Your task to perform on an android device: toggle show notifications on the lock screen Image 0: 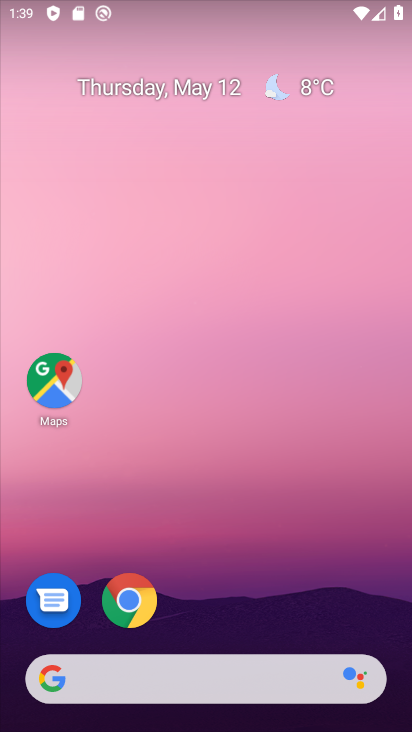
Step 0: drag from (209, 570) to (217, 179)
Your task to perform on an android device: toggle show notifications on the lock screen Image 1: 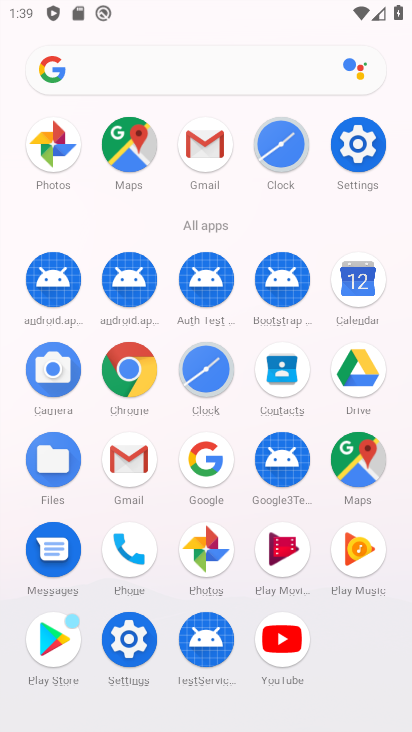
Step 1: click (361, 144)
Your task to perform on an android device: toggle show notifications on the lock screen Image 2: 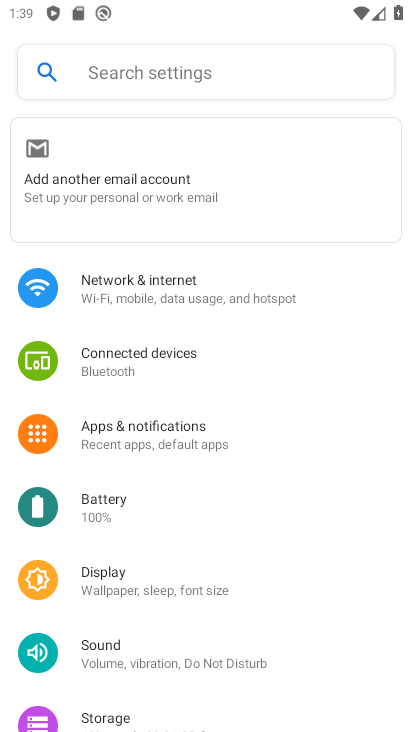
Step 2: click (205, 449)
Your task to perform on an android device: toggle show notifications on the lock screen Image 3: 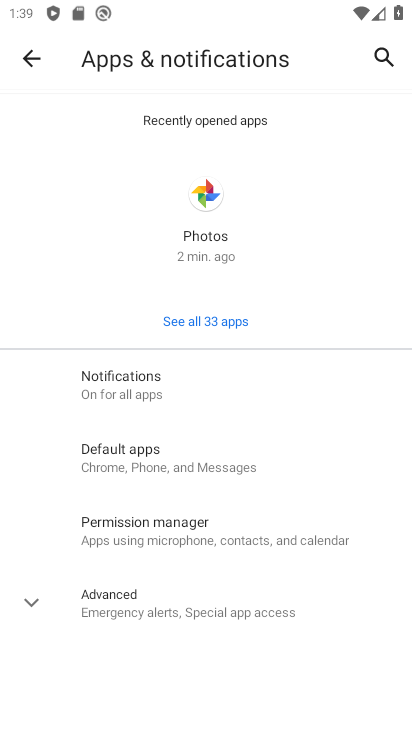
Step 3: click (168, 376)
Your task to perform on an android device: toggle show notifications on the lock screen Image 4: 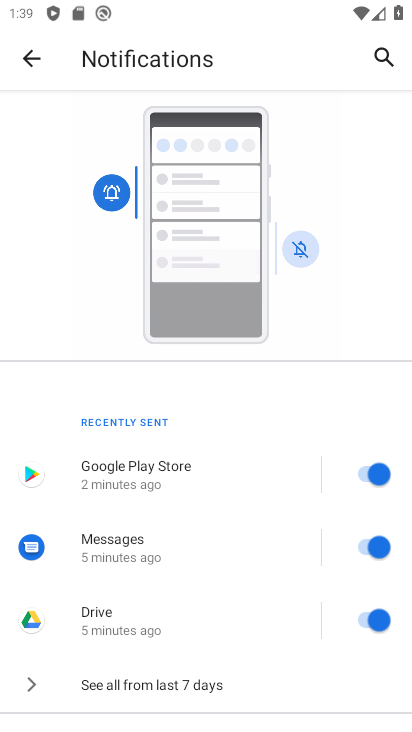
Step 4: drag from (176, 653) to (210, 303)
Your task to perform on an android device: toggle show notifications on the lock screen Image 5: 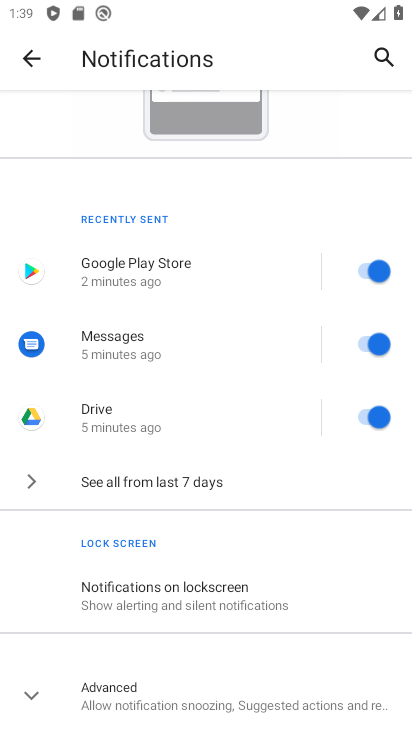
Step 5: click (177, 594)
Your task to perform on an android device: toggle show notifications on the lock screen Image 6: 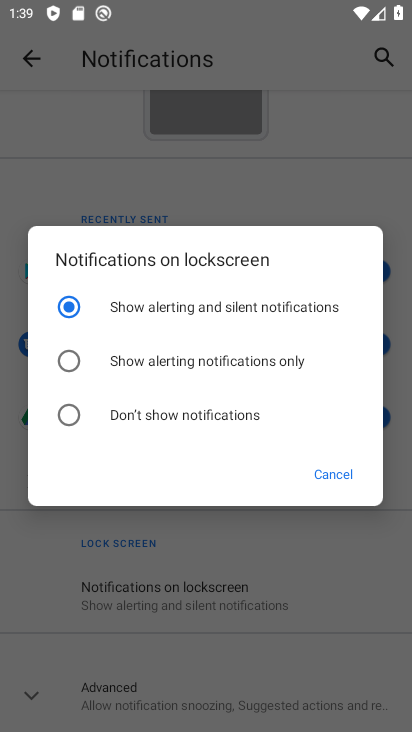
Step 6: click (62, 368)
Your task to perform on an android device: toggle show notifications on the lock screen Image 7: 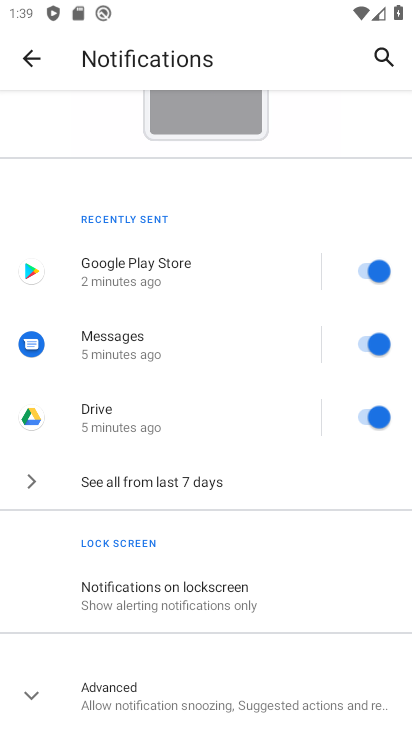
Step 7: task complete